Your task to perform on an android device: open sync settings in chrome Image 0: 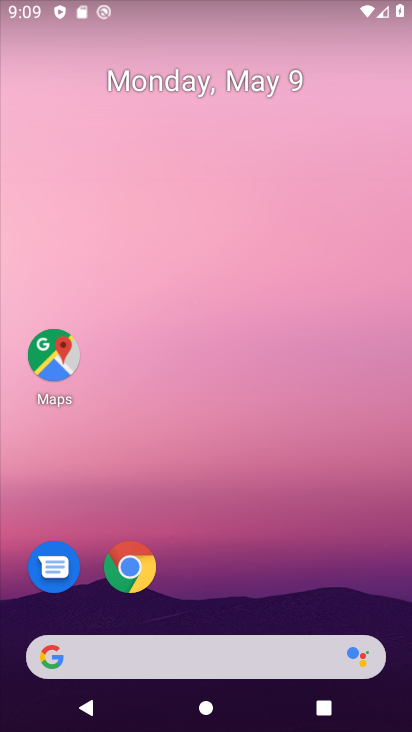
Step 0: drag from (254, 513) to (324, 200)
Your task to perform on an android device: open sync settings in chrome Image 1: 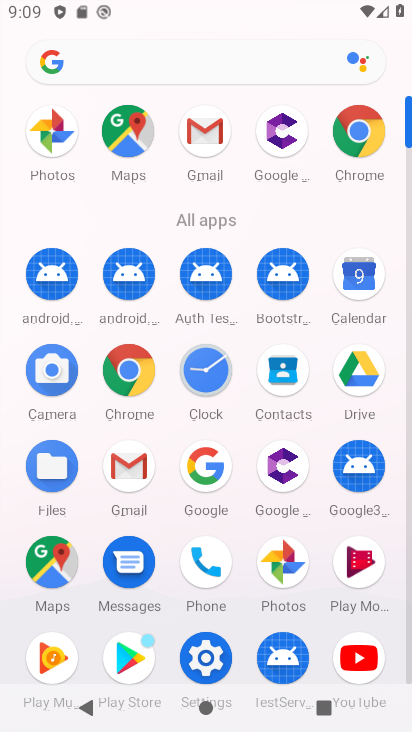
Step 1: click (128, 377)
Your task to perform on an android device: open sync settings in chrome Image 2: 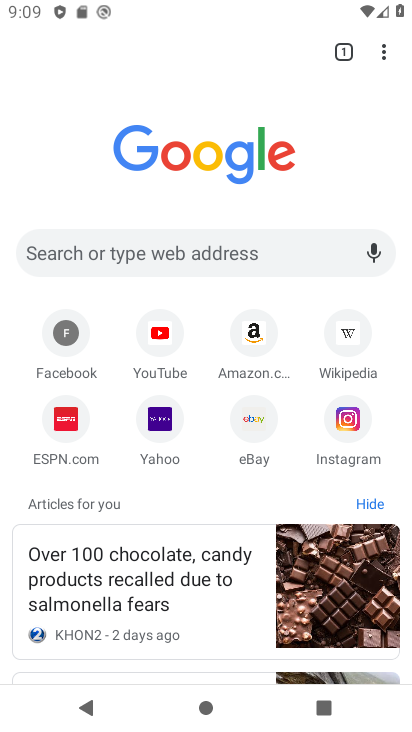
Step 2: drag from (384, 51) to (284, 427)
Your task to perform on an android device: open sync settings in chrome Image 3: 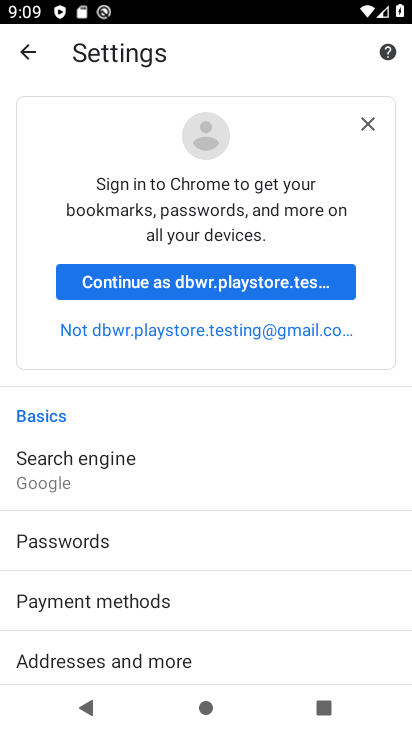
Step 3: drag from (190, 507) to (277, 0)
Your task to perform on an android device: open sync settings in chrome Image 4: 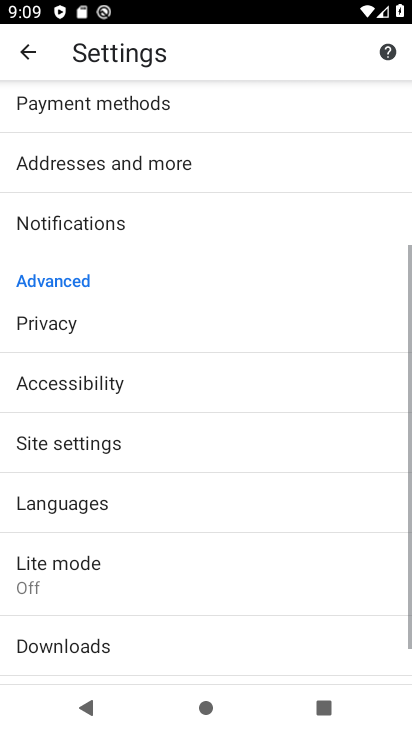
Step 4: drag from (216, 604) to (266, 227)
Your task to perform on an android device: open sync settings in chrome Image 5: 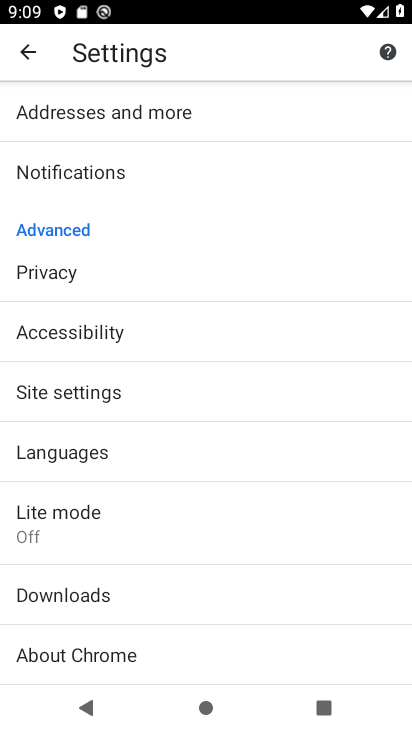
Step 5: drag from (210, 574) to (275, 209)
Your task to perform on an android device: open sync settings in chrome Image 6: 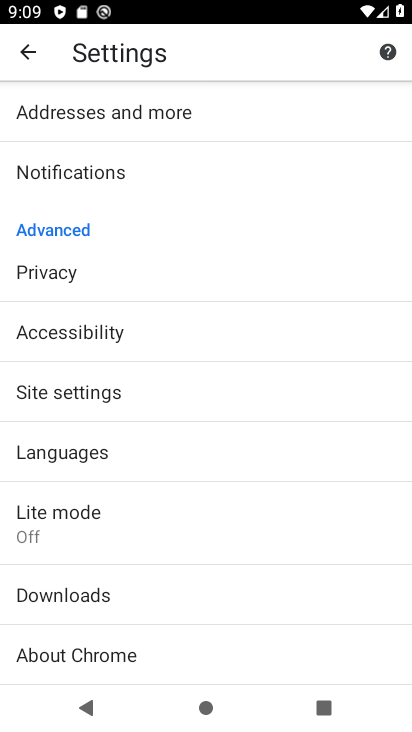
Step 6: click (76, 388)
Your task to perform on an android device: open sync settings in chrome Image 7: 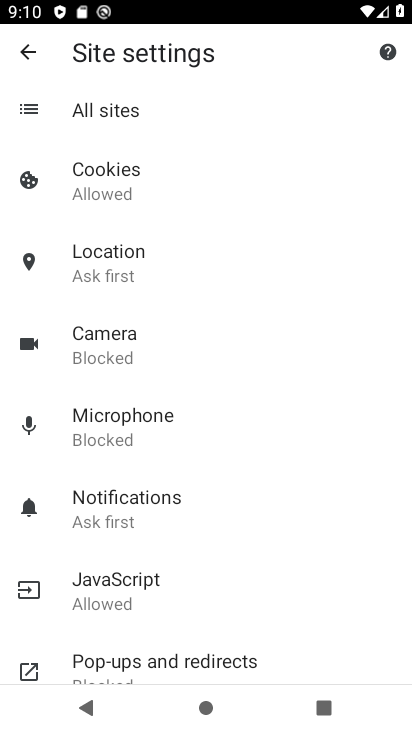
Step 7: drag from (168, 529) to (240, 174)
Your task to perform on an android device: open sync settings in chrome Image 8: 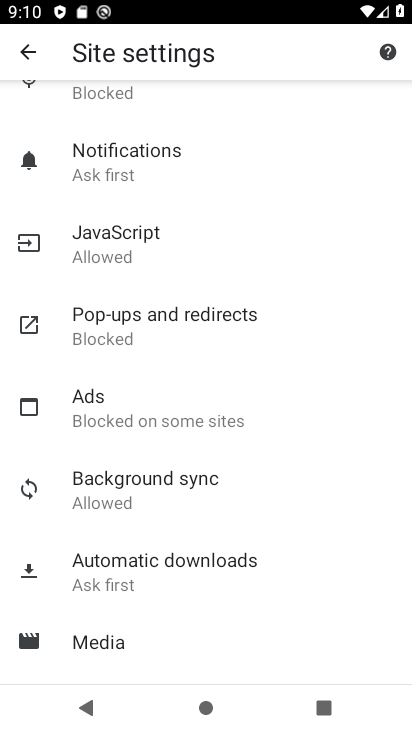
Step 8: click (144, 487)
Your task to perform on an android device: open sync settings in chrome Image 9: 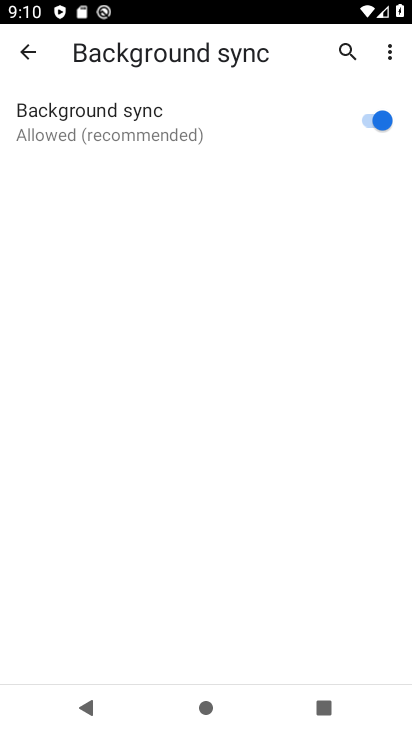
Step 9: task complete